Your task to perform on an android device: empty trash in the gmail app Image 0: 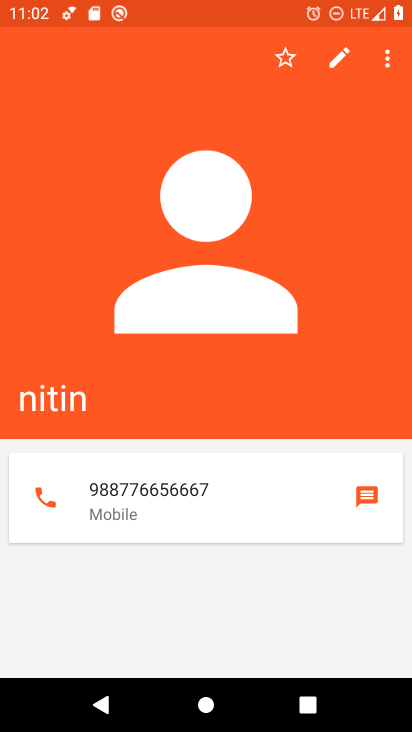
Step 0: press home button
Your task to perform on an android device: empty trash in the gmail app Image 1: 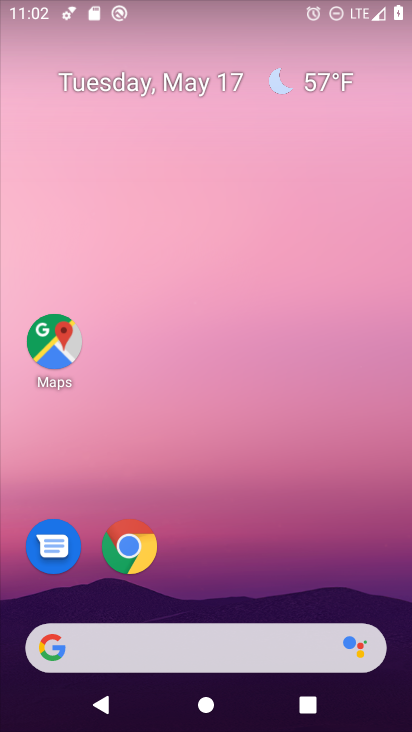
Step 1: drag from (325, 581) to (407, 44)
Your task to perform on an android device: empty trash in the gmail app Image 2: 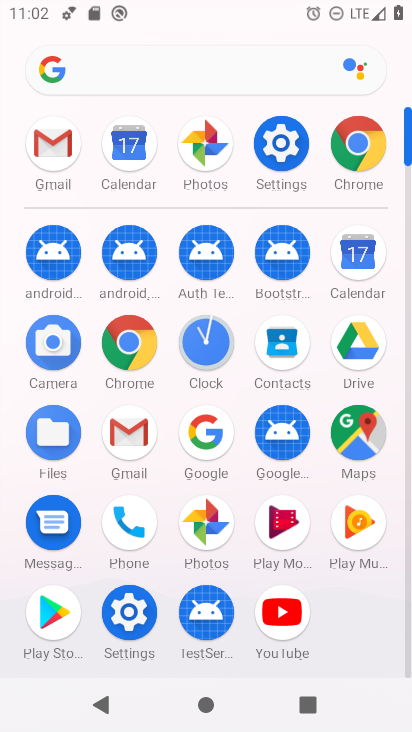
Step 2: click (48, 140)
Your task to perform on an android device: empty trash in the gmail app Image 3: 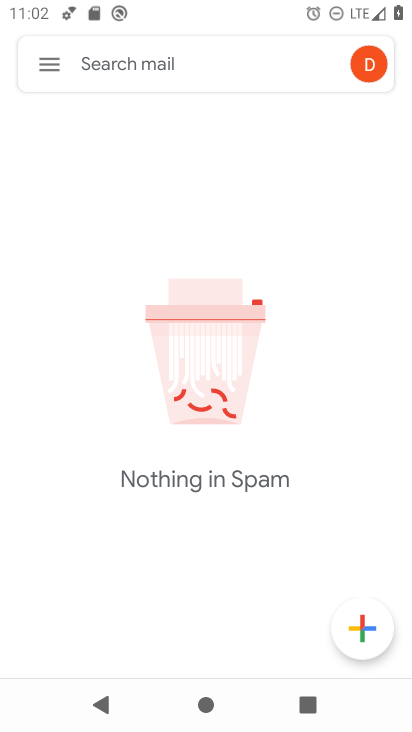
Step 3: click (44, 74)
Your task to perform on an android device: empty trash in the gmail app Image 4: 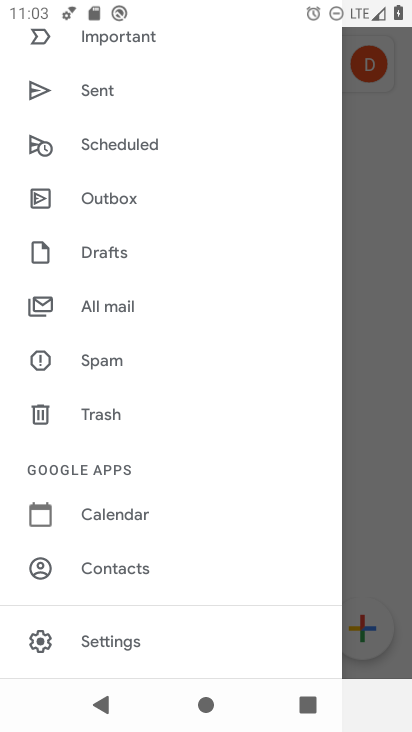
Step 4: click (81, 415)
Your task to perform on an android device: empty trash in the gmail app Image 5: 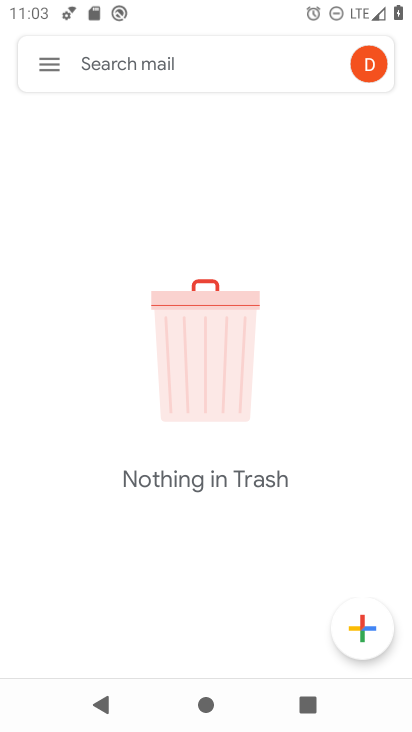
Step 5: task complete